Your task to perform on an android device: turn on bluetooth scan Image 0: 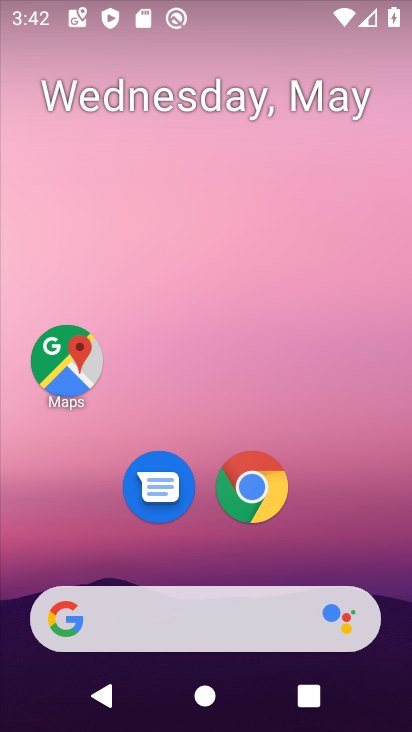
Step 0: drag from (343, 522) to (255, 16)
Your task to perform on an android device: turn on bluetooth scan Image 1: 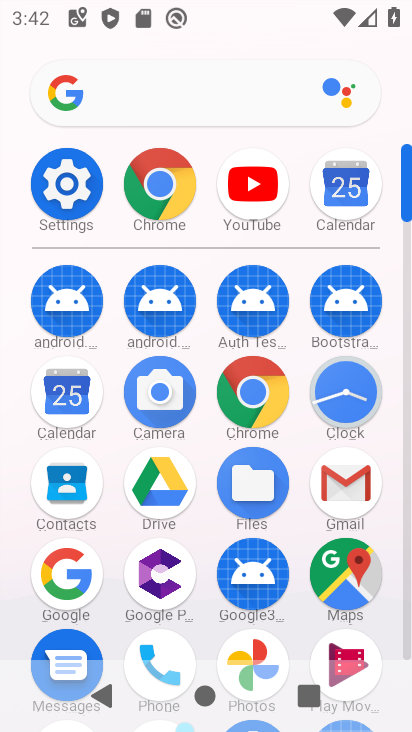
Step 1: drag from (9, 578) to (23, 255)
Your task to perform on an android device: turn on bluetooth scan Image 2: 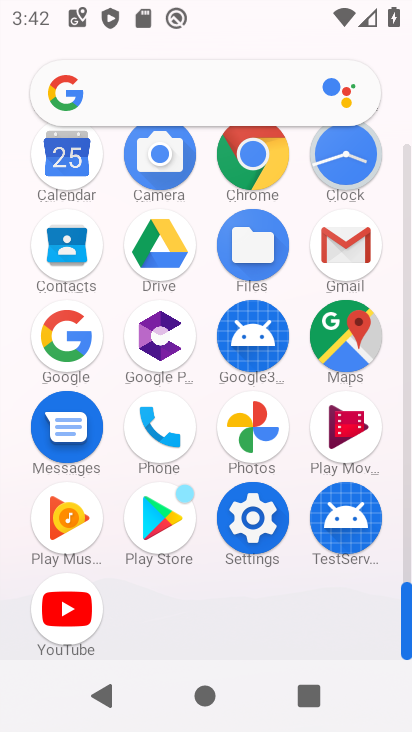
Step 2: click (250, 513)
Your task to perform on an android device: turn on bluetooth scan Image 3: 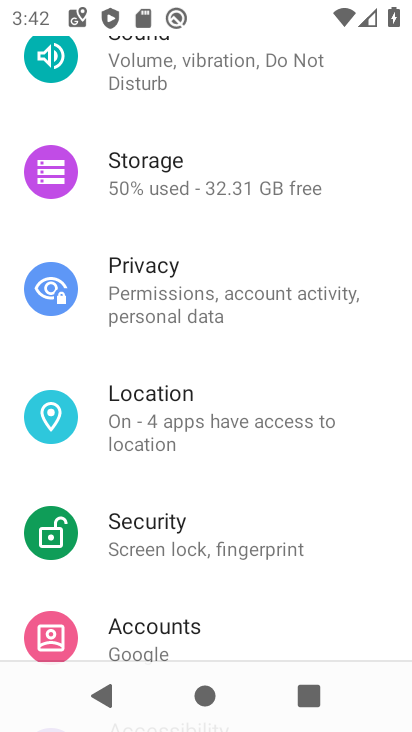
Step 3: drag from (326, 196) to (331, 599)
Your task to perform on an android device: turn on bluetooth scan Image 4: 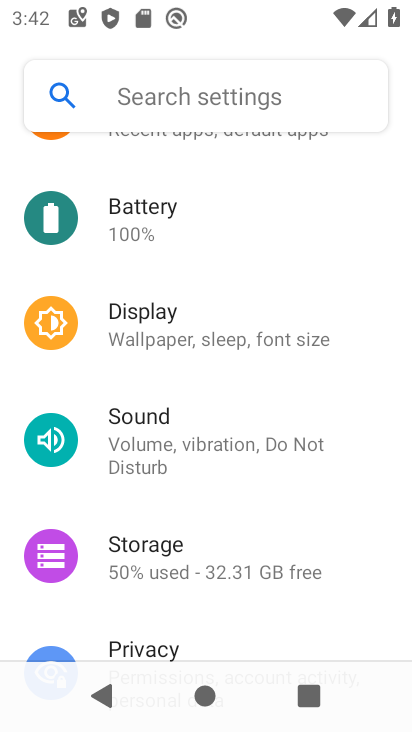
Step 4: drag from (304, 277) to (315, 629)
Your task to perform on an android device: turn on bluetooth scan Image 5: 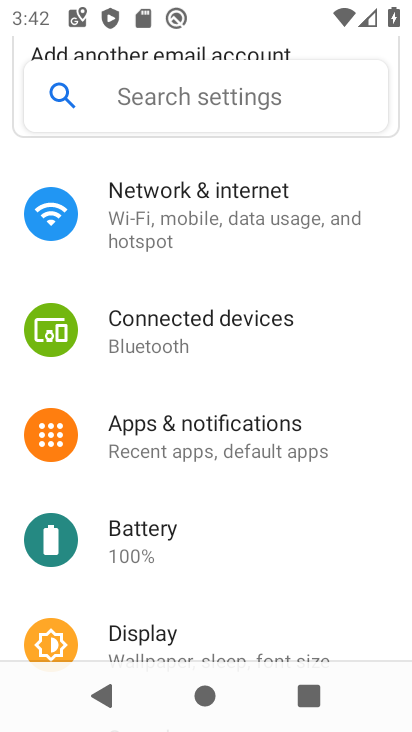
Step 5: drag from (313, 568) to (318, 253)
Your task to perform on an android device: turn on bluetooth scan Image 6: 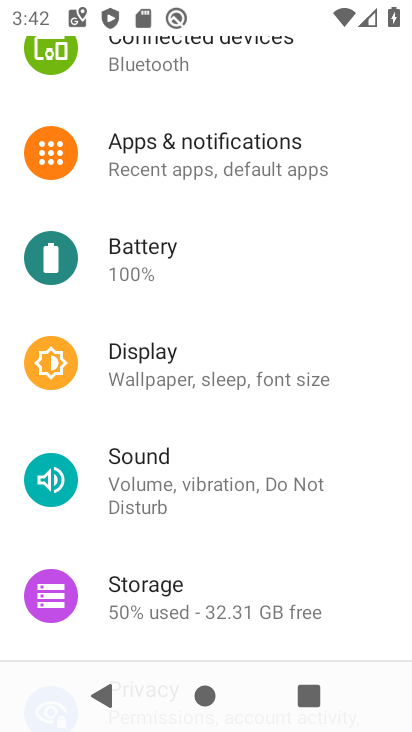
Step 6: drag from (209, 532) to (247, 214)
Your task to perform on an android device: turn on bluetooth scan Image 7: 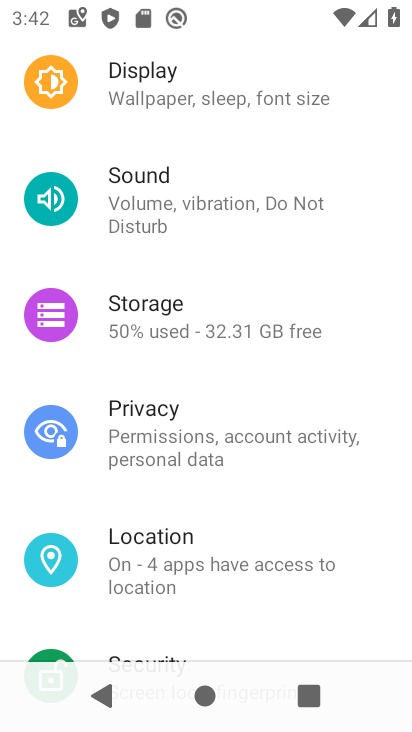
Step 7: click (192, 544)
Your task to perform on an android device: turn on bluetooth scan Image 8: 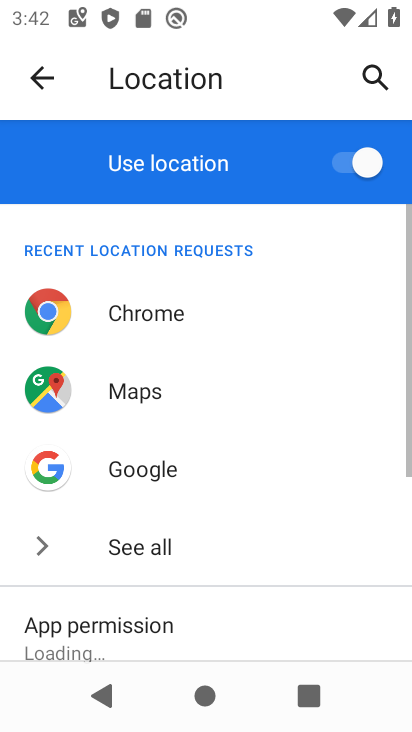
Step 8: drag from (278, 538) to (275, 175)
Your task to perform on an android device: turn on bluetooth scan Image 9: 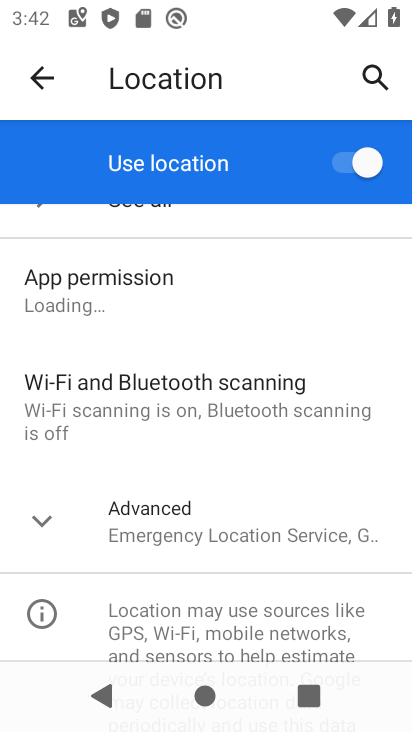
Step 9: click (37, 542)
Your task to perform on an android device: turn on bluetooth scan Image 10: 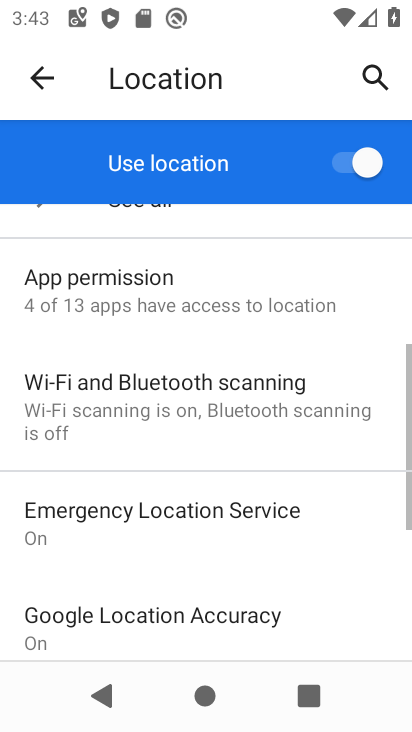
Step 10: drag from (305, 573) to (287, 295)
Your task to perform on an android device: turn on bluetooth scan Image 11: 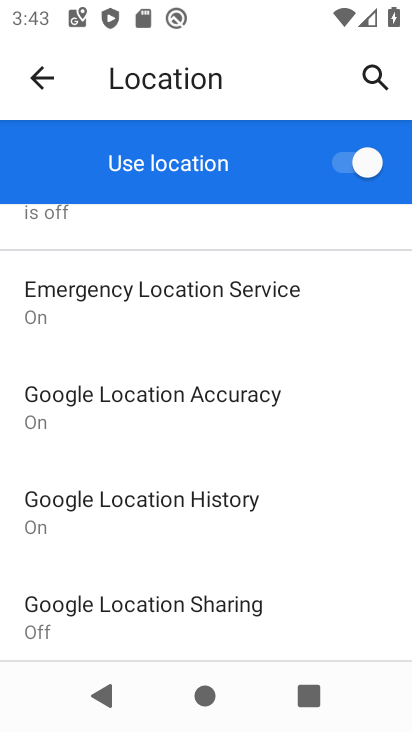
Step 11: drag from (299, 578) to (309, 218)
Your task to perform on an android device: turn on bluetooth scan Image 12: 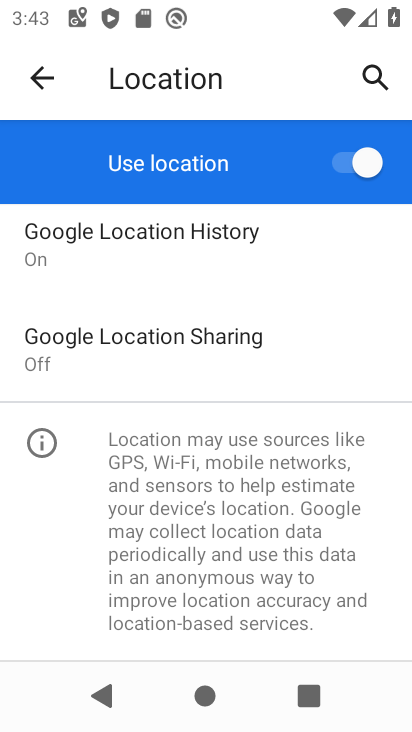
Step 12: drag from (271, 625) to (290, 247)
Your task to perform on an android device: turn on bluetooth scan Image 13: 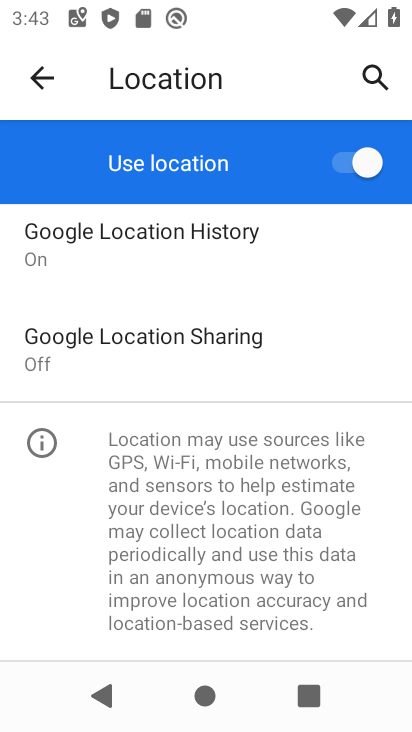
Step 13: drag from (297, 352) to (272, 668)
Your task to perform on an android device: turn on bluetooth scan Image 14: 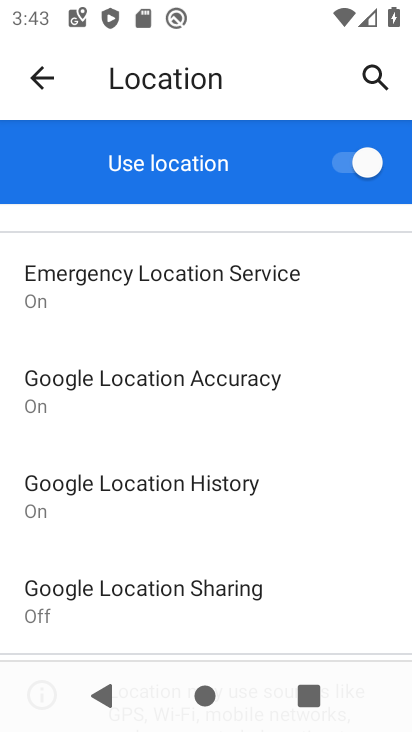
Step 14: drag from (309, 346) to (263, 651)
Your task to perform on an android device: turn on bluetooth scan Image 15: 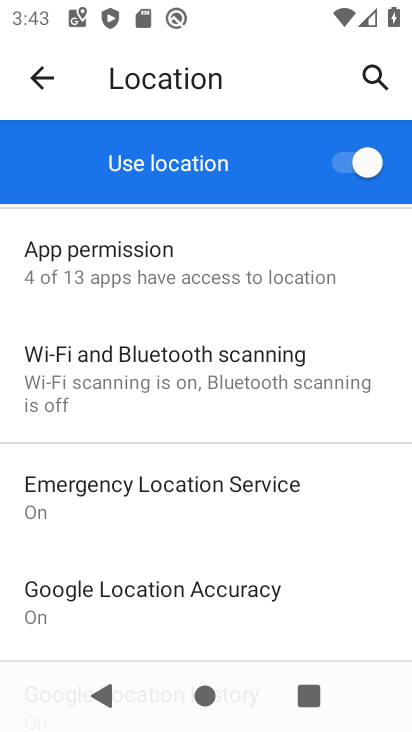
Step 15: click (270, 392)
Your task to perform on an android device: turn on bluetooth scan Image 16: 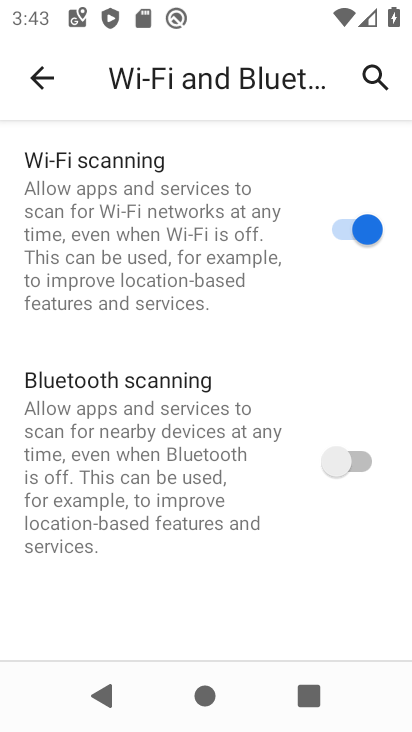
Step 16: click (359, 482)
Your task to perform on an android device: turn on bluetooth scan Image 17: 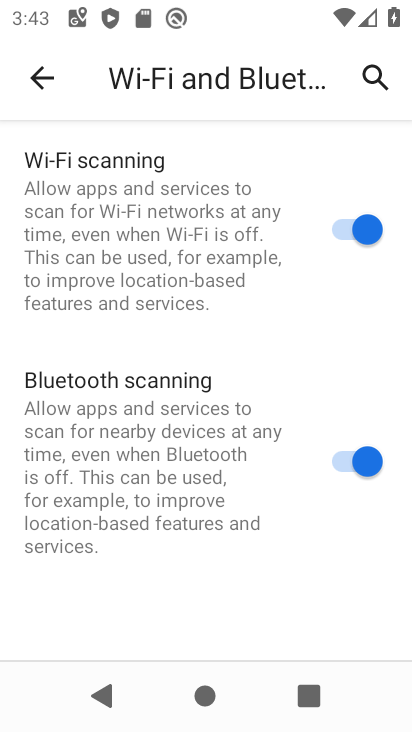
Step 17: task complete